Your task to perform on an android device: Go to display settings Image 0: 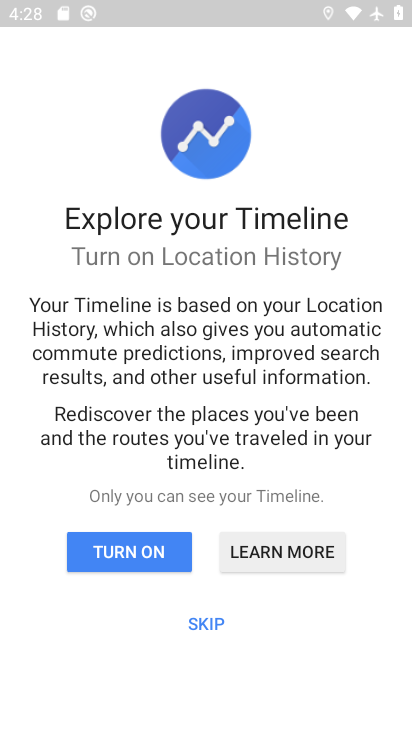
Step 0: press back button
Your task to perform on an android device: Go to display settings Image 1: 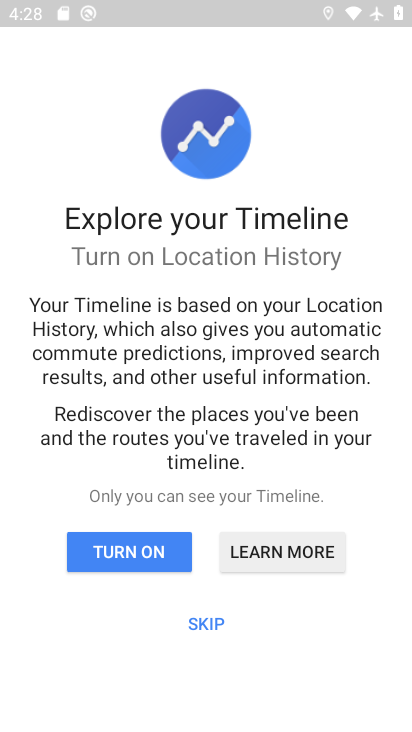
Step 1: press back button
Your task to perform on an android device: Go to display settings Image 2: 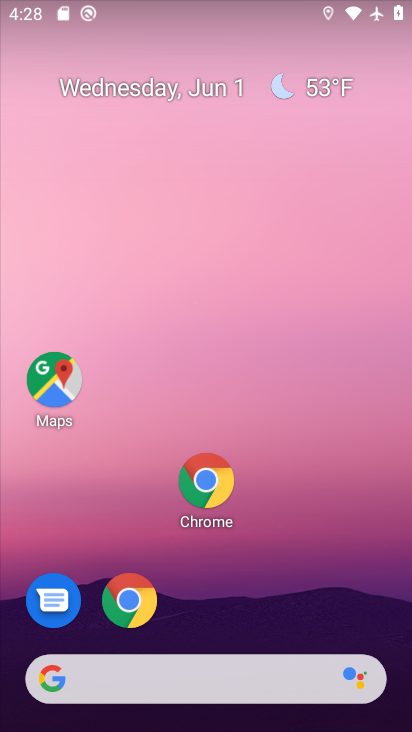
Step 2: drag from (217, 688) to (135, 152)
Your task to perform on an android device: Go to display settings Image 3: 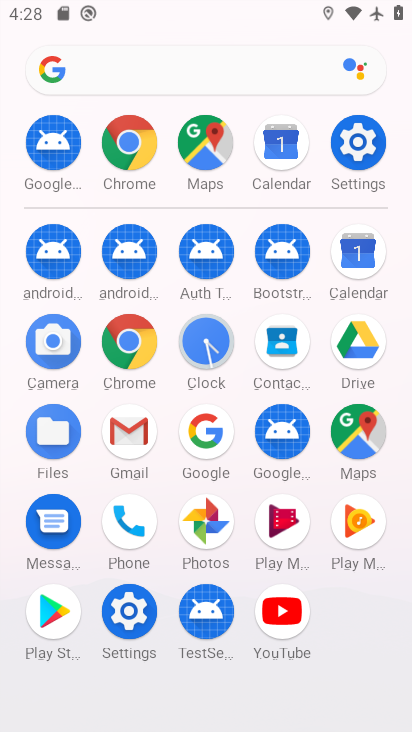
Step 3: click (130, 614)
Your task to perform on an android device: Go to display settings Image 4: 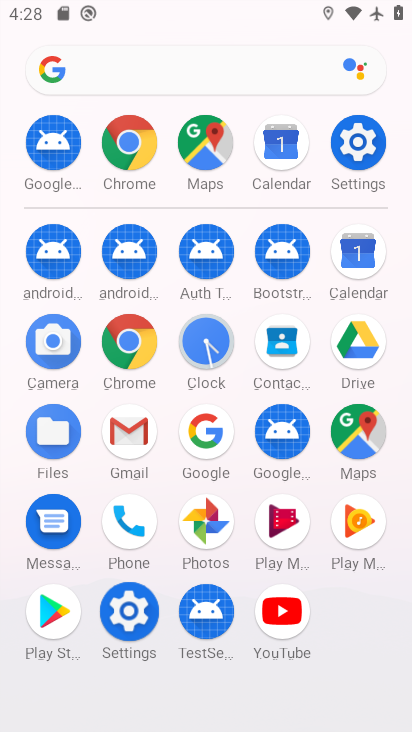
Step 4: click (130, 614)
Your task to perform on an android device: Go to display settings Image 5: 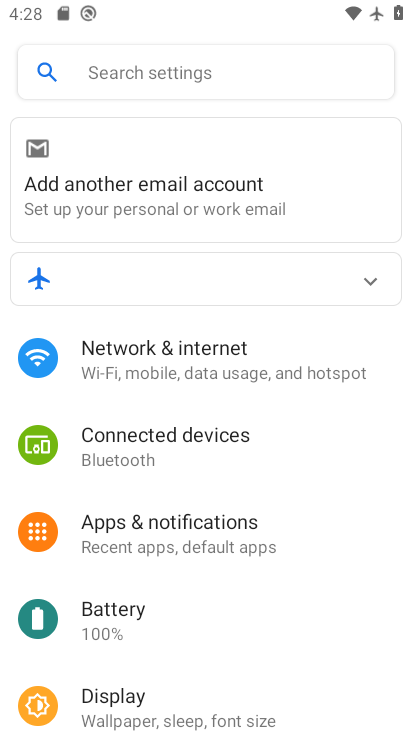
Step 5: drag from (173, 603) to (175, 297)
Your task to perform on an android device: Go to display settings Image 6: 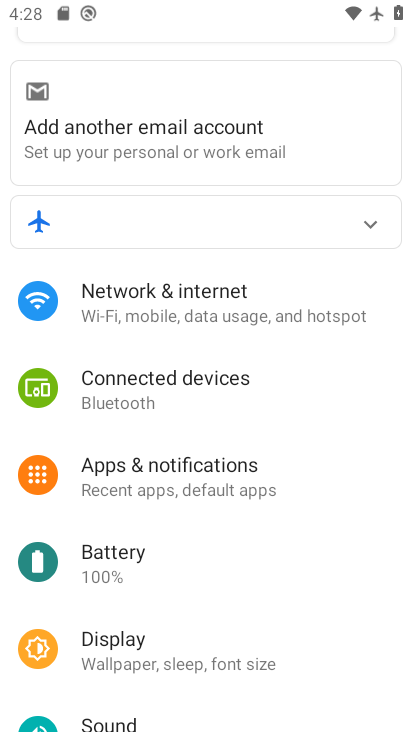
Step 6: click (113, 635)
Your task to perform on an android device: Go to display settings Image 7: 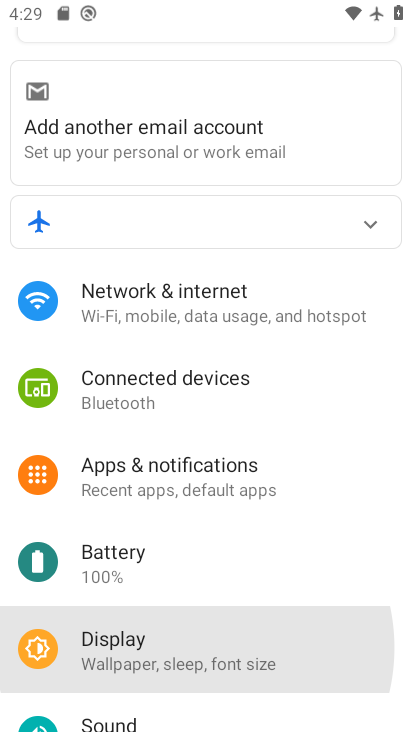
Step 7: click (117, 637)
Your task to perform on an android device: Go to display settings Image 8: 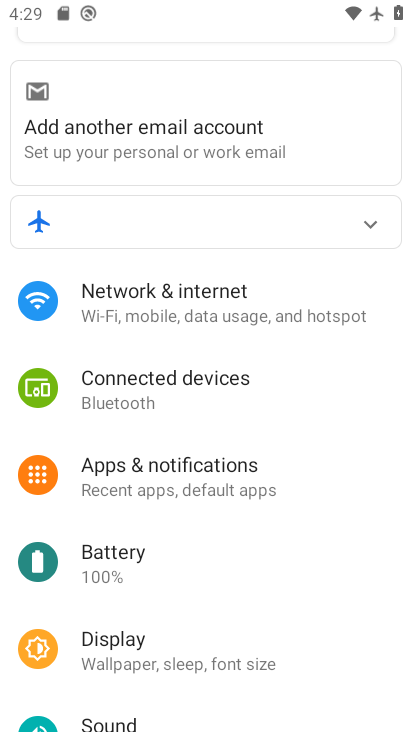
Step 8: click (117, 637)
Your task to perform on an android device: Go to display settings Image 9: 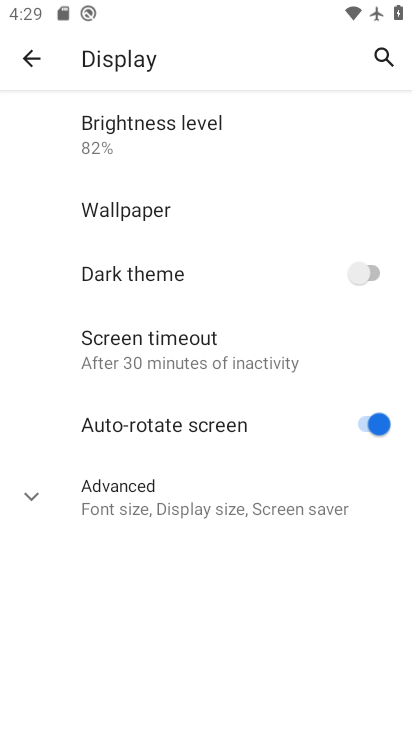
Step 9: click (117, 637)
Your task to perform on an android device: Go to display settings Image 10: 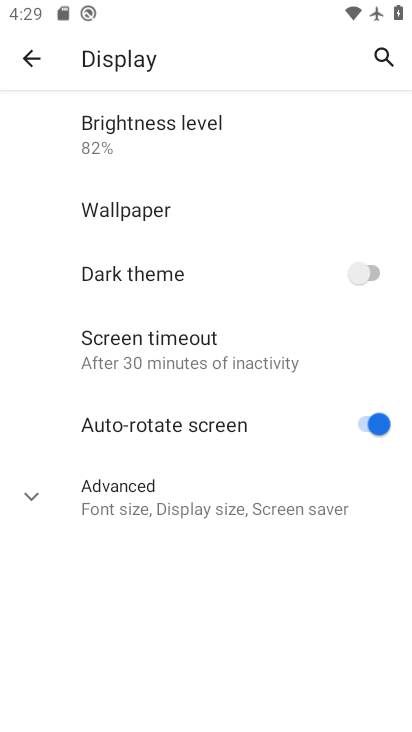
Step 10: task complete